Your task to perform on an android device: open app "Instagram" (install if not already installed) Image 0: 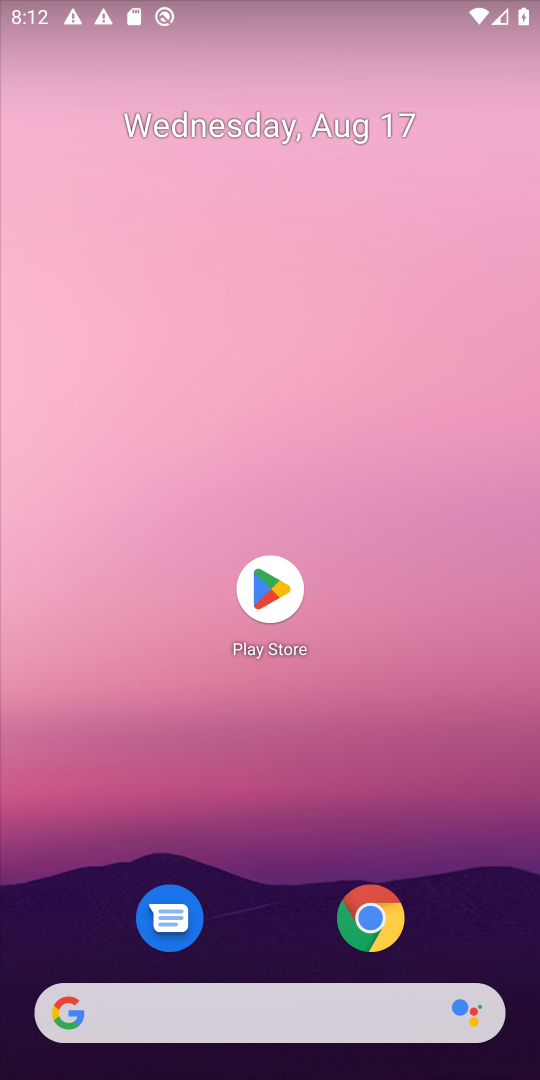
Step 0: press home button
Your task to perform on an android device: open app "Instagram" (install if not already installed) Image 1: 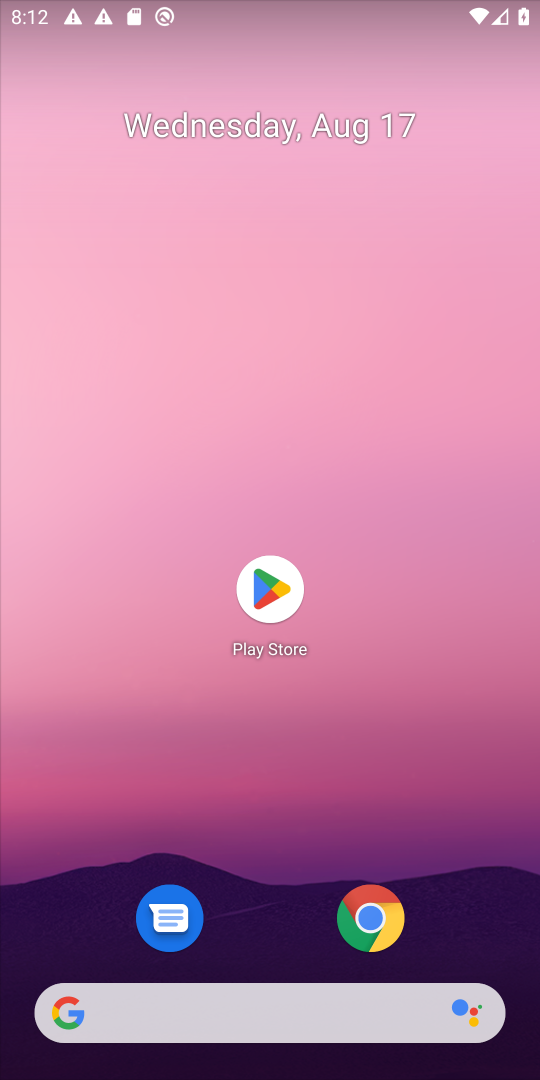
Step 1: click (274, 589)
Your task to perform on an android device: open app "Instagram" (install if not already installed) Image 2: 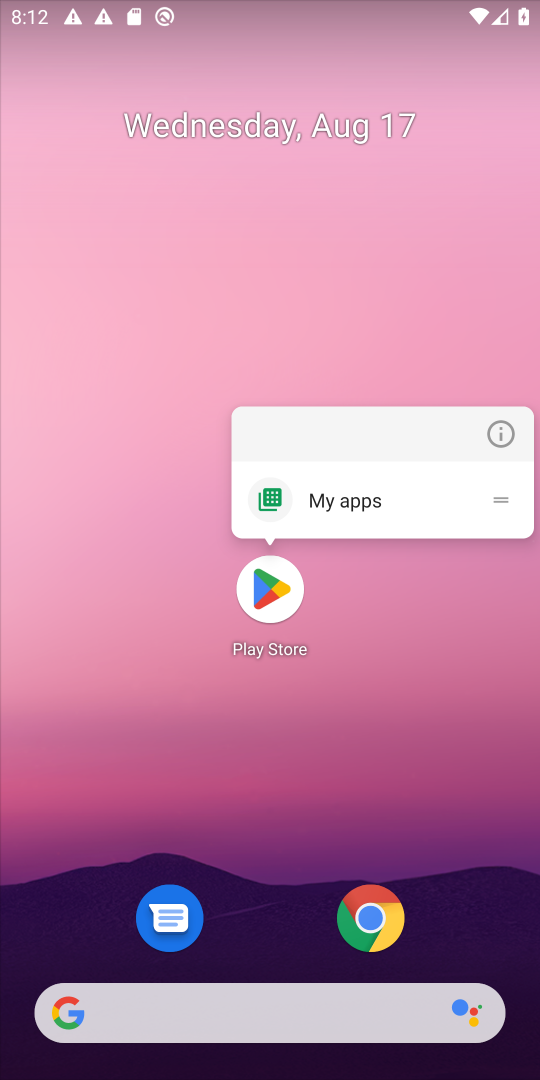
Step 2: click (274, 594)
Your task to perform on an android device: open app "Instagram" (install if not already installed) Image 3: 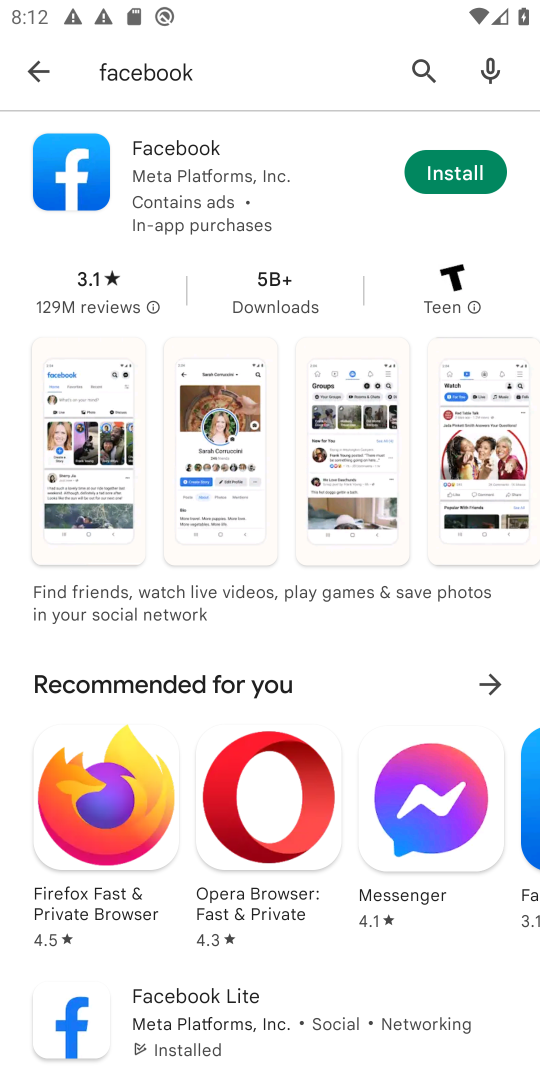
Step 3: click (418, 64)
Your task to perform on an android device: open app "Instagram" (install if not already installed) Image 4: 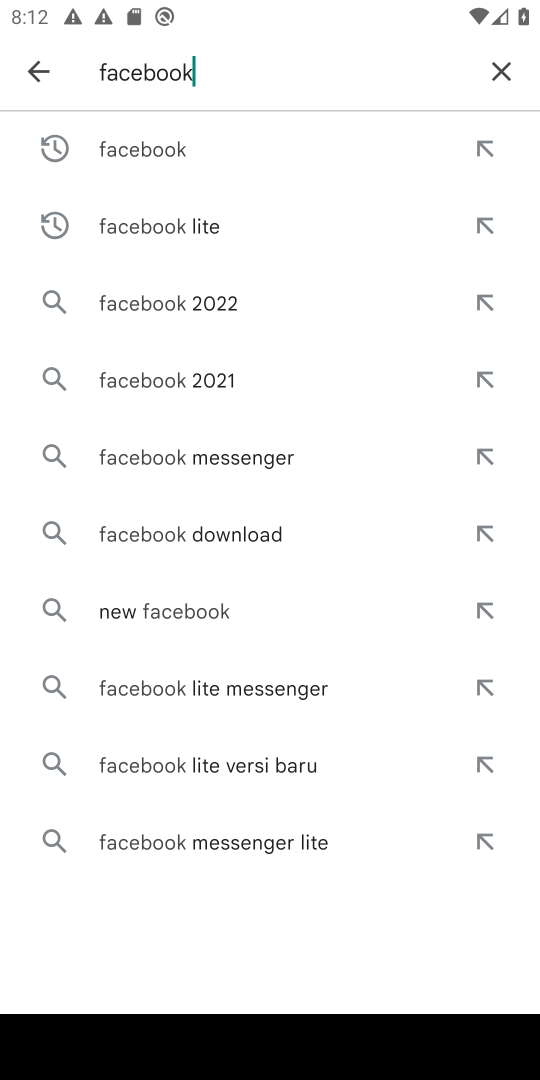
Step 4: click (507, 72)
Your task to perform on an android device: open app "Instagram" (install if not already installed) Image 5: 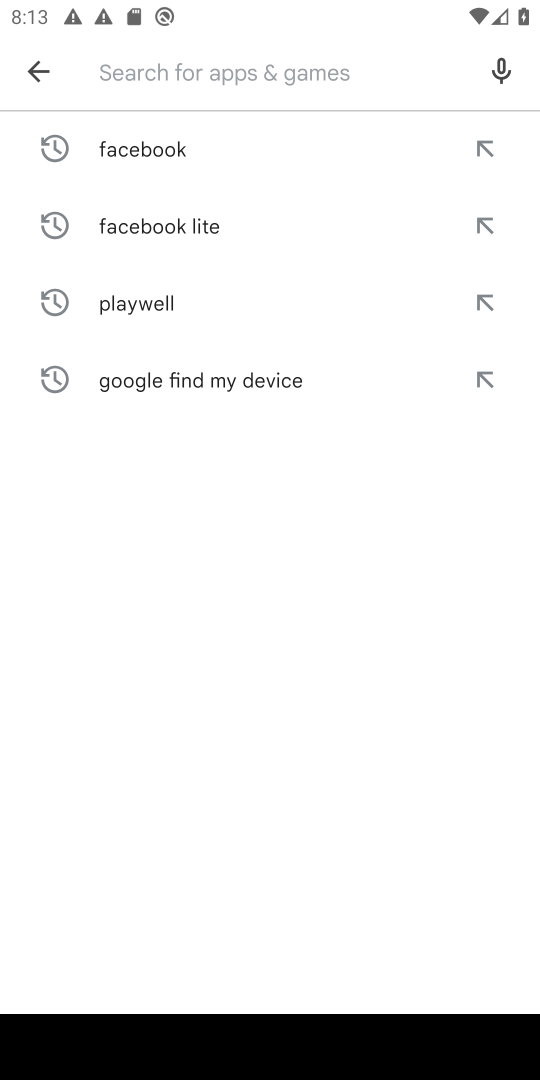
Step 5: type "Instagram"
Your task to perform on an android device: open app "Instagram" (install if not already installed) Image 6: 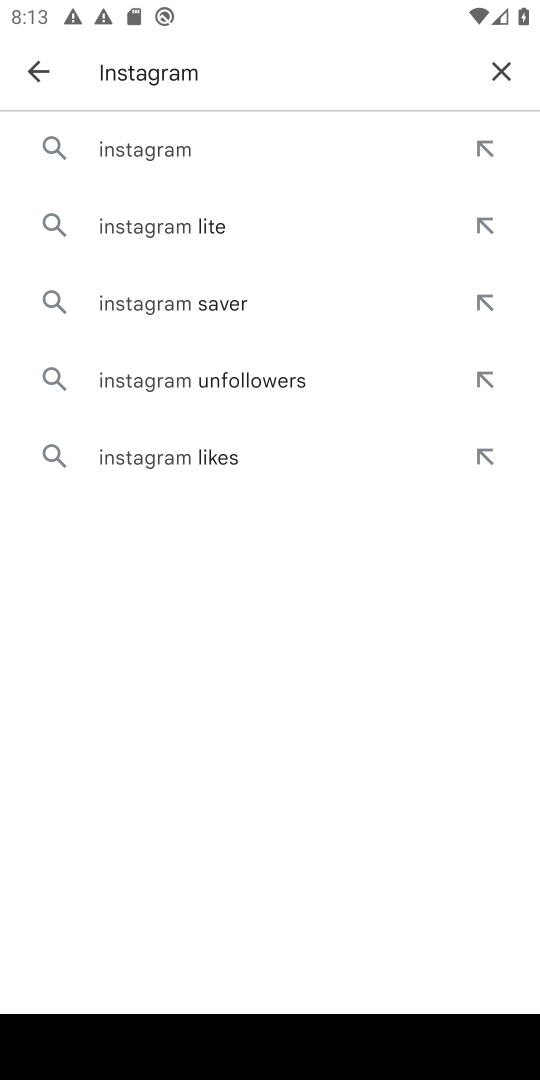
Step 6: click (115, 150)
Your task to perform on an android device: open app "Instagram" (install if not already installed) Image 7: 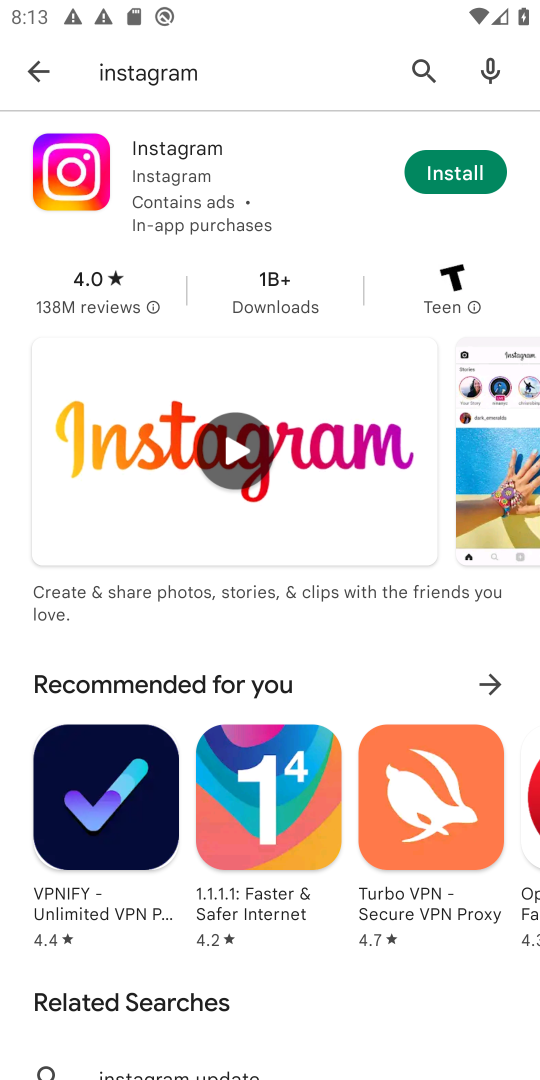
Step 7: click (442, 190)
Your task to perform on an android device: open app "Instagram" (install if not already installed) Image 8: 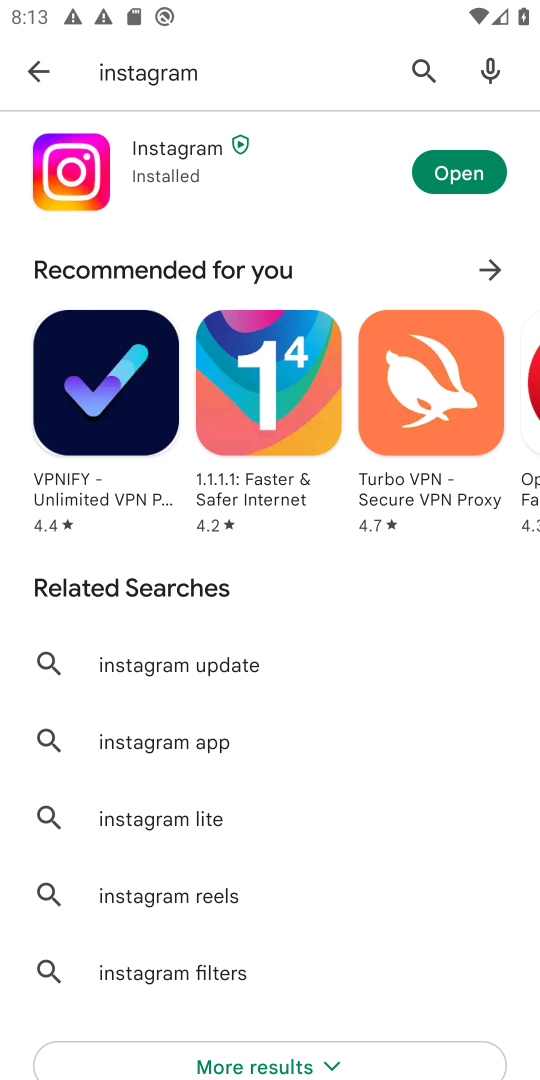
Step 8: click (439, 166)
Your task to perform on an android device: open app "Instagram" (install if not already installed) Image 9: 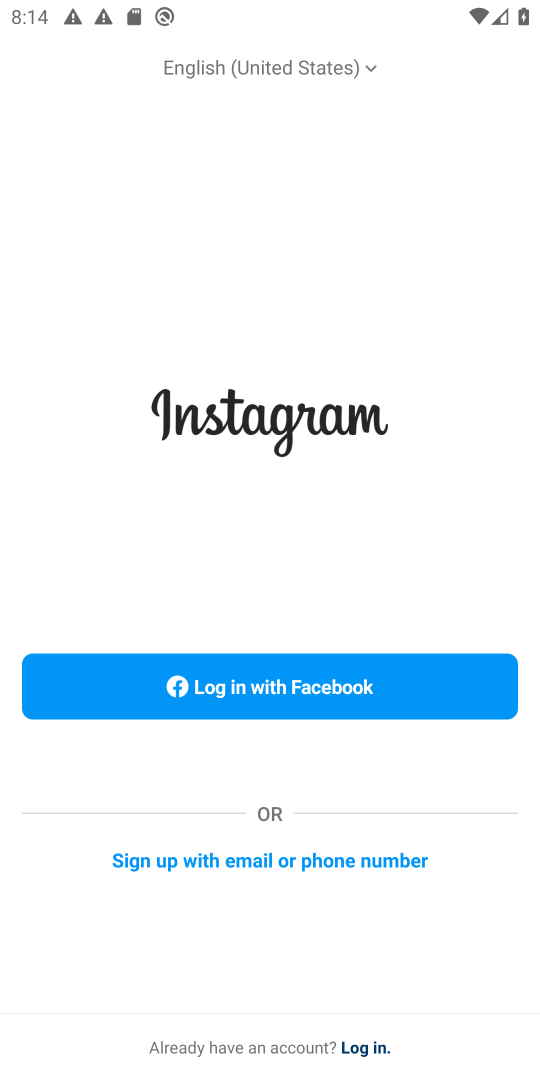
Step 9: task complete